Your task to perform on an android device: Open Amazon Image 0: 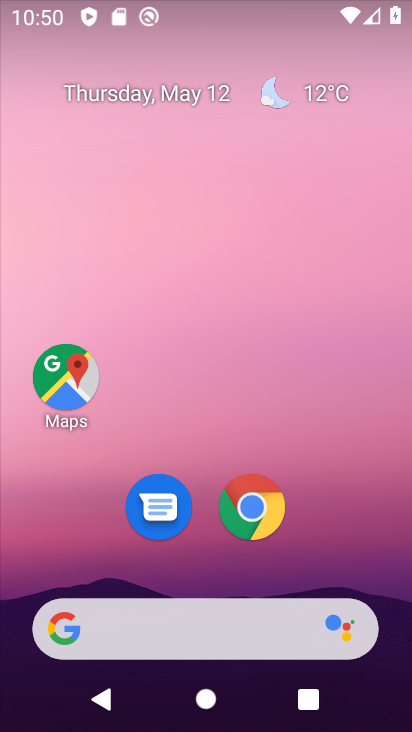
Step 0: drag from (233, 569) to (307, 49)
Your task to perform on an android device: Open Amazon Image 1: 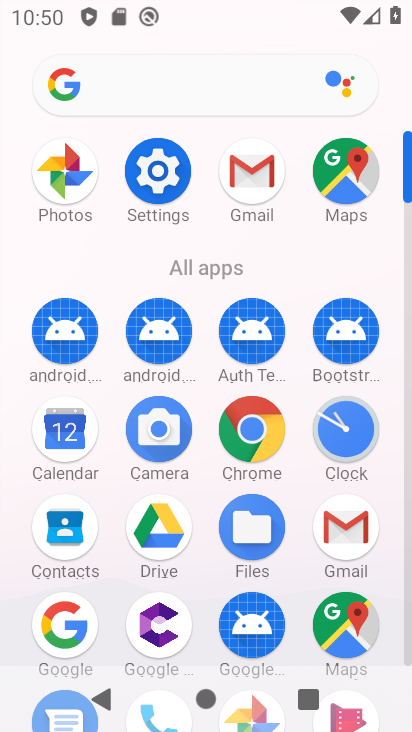
Step 1: click (262, 436)
Your task to perform on an android device: Open Amazon Image 2: 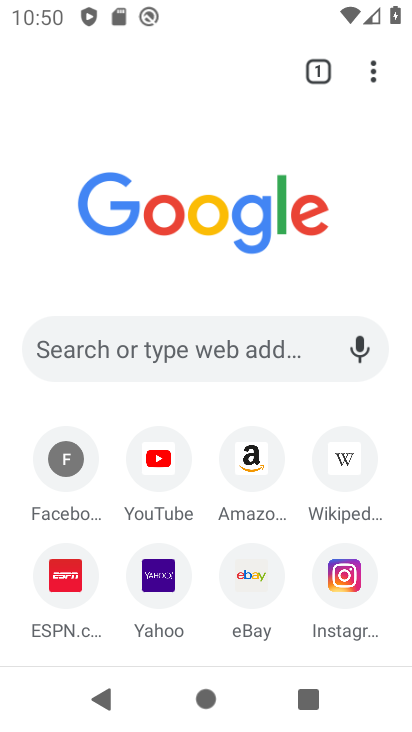
Step 2: click (239, 476)
Your task to perform on an android device: Open Amazon Image 3: 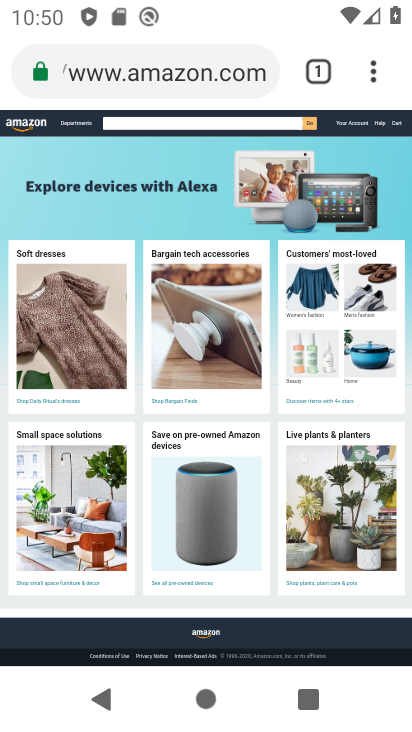
Step 3: task complete